Your task to perform on an android device: Open wifi settings Image 0: 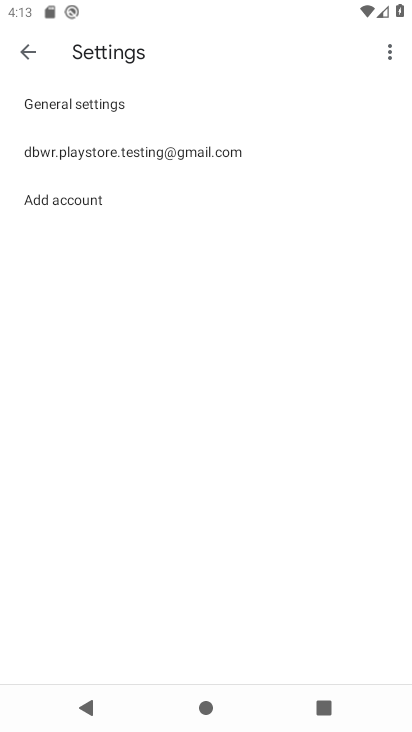
Step 0: press home button
Your task to perform on an android device: Open wifi settings Image 1: 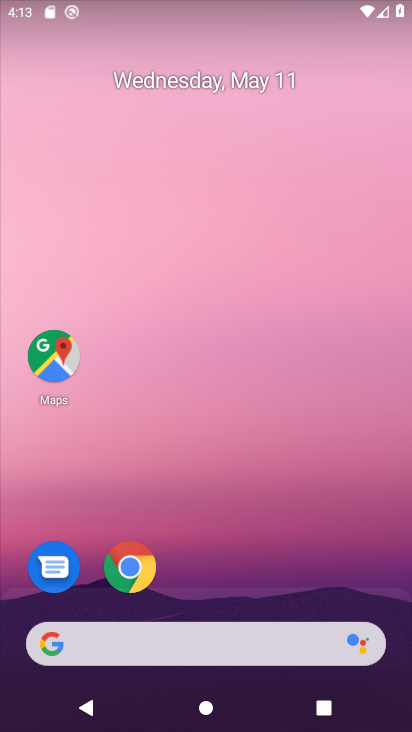
Step 1: drag from (211, 390) to (243, 115)
Your task to perform on an android device: Open wifi settings Image 2: 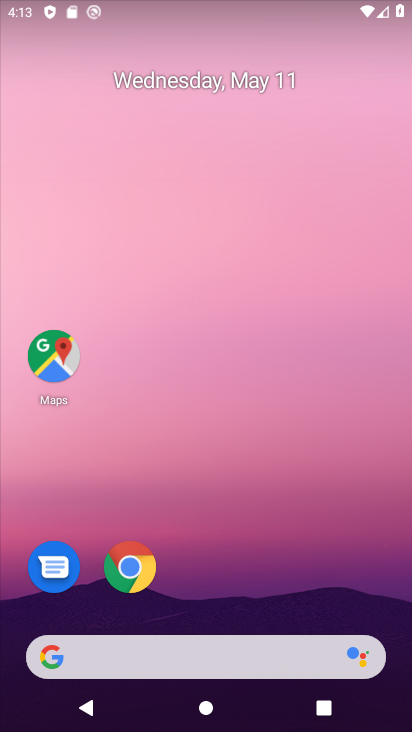
Step 2: drag from (241, 613) to (276, 120)
Your task to perform on an android device: Open wifi settings Image 3: 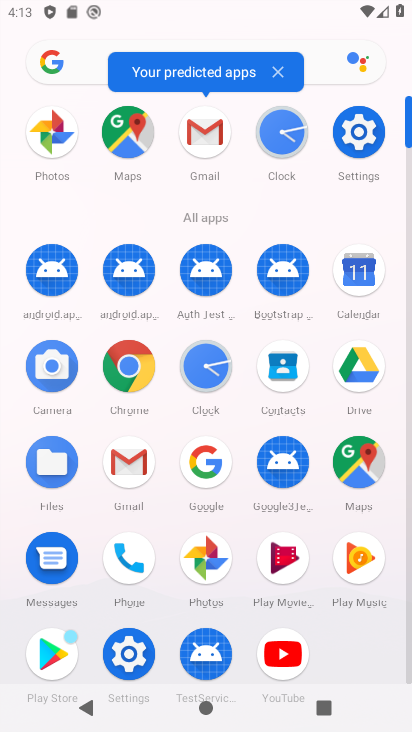
Step 3: click (360, 149)
Your task to perform on an android device: Open wifi settings Image 4: 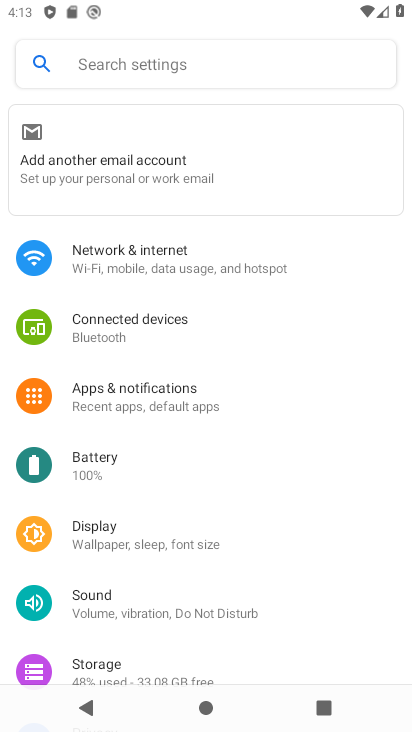
Step 4: click (145, 245)
Your task to perform on an android device: Open wifi settings Image 5: 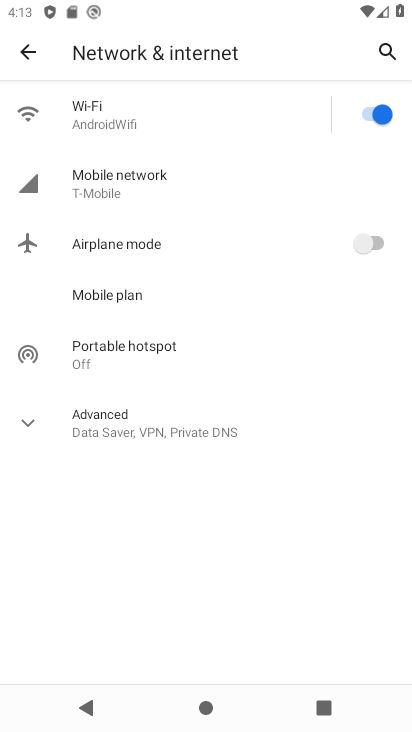
Step 5: click (173, 108)
Your task to perform on an android device: Open wifi settings Image 6: 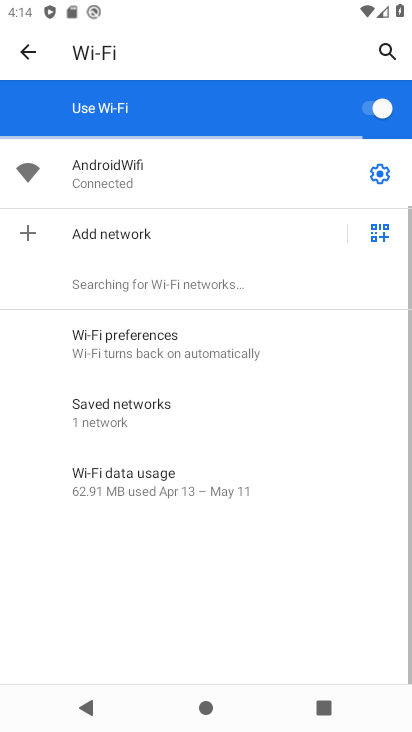
Step 6: task complete